Your task to perform on an android device: clear history in the chrome app Image 0: 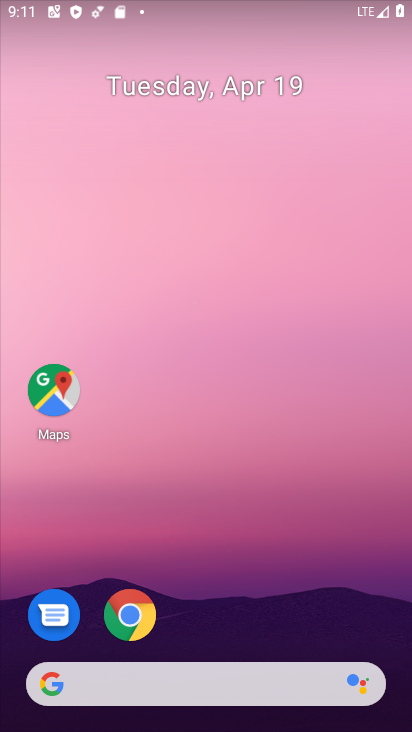
Step 0: click (133, 619)
Your task to perform on an android device: clear history in the chrome app Image 1: 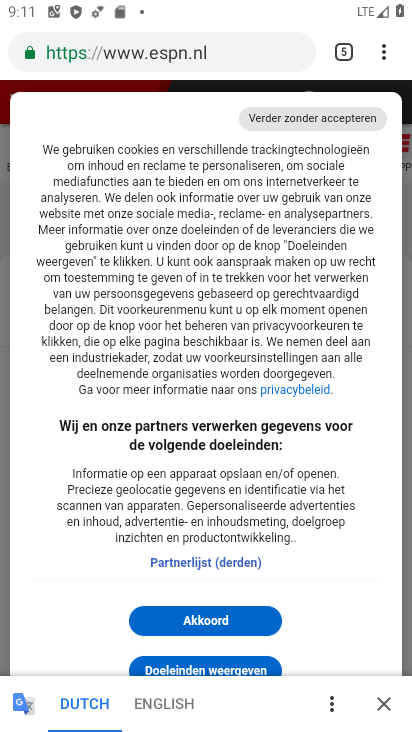
Step 1: click (383, 56)
Your task to perform on an android device: clear history in the chrome app Image 2: 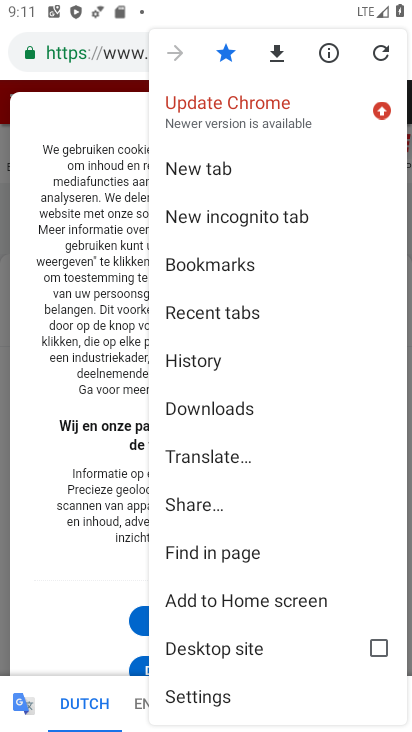
Step 2: click (225, 351)
Your task to perform on an android device: clear history in the chrome app Image 3: 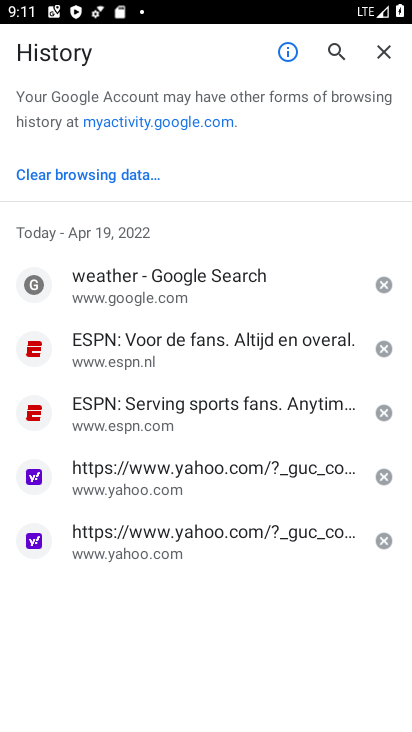
Step 3: click (104, 172)
Your task to perform on an android device: clear history in the chrome app Image 4: 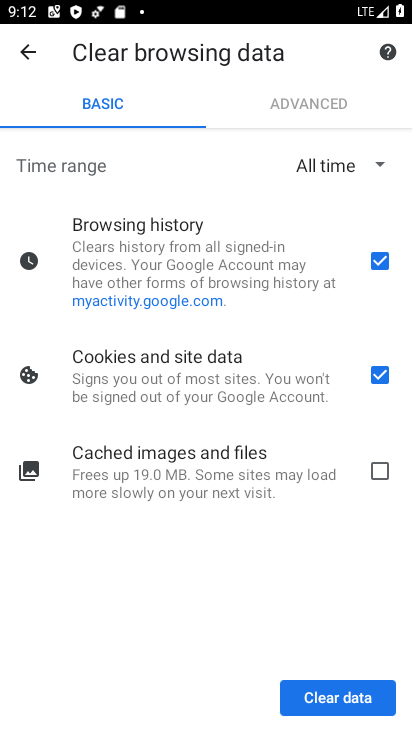
Step 4: click (390, 374)
Your task to perform on an android device: clear history in the chrome app Image 5: 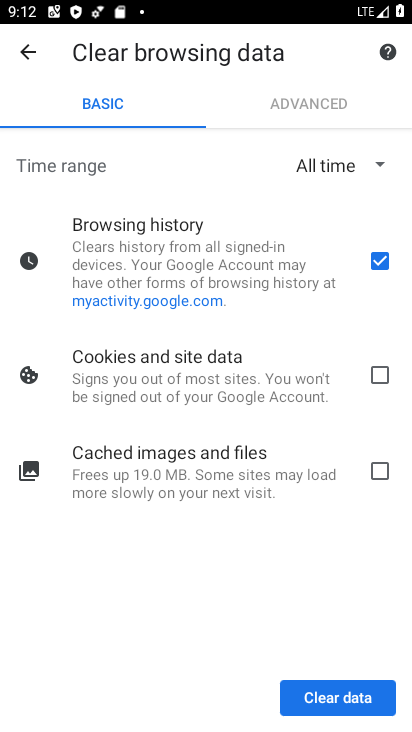
Step 5: click (345, 704)
Your task to perform on an android device: clear history in the chrome app Image 6: 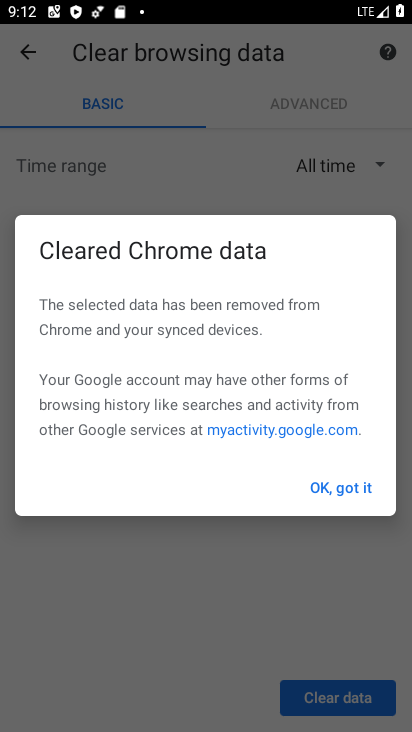
Step 6: task complete